Your task to perform on an android device: Go to wifi settings Image 0: 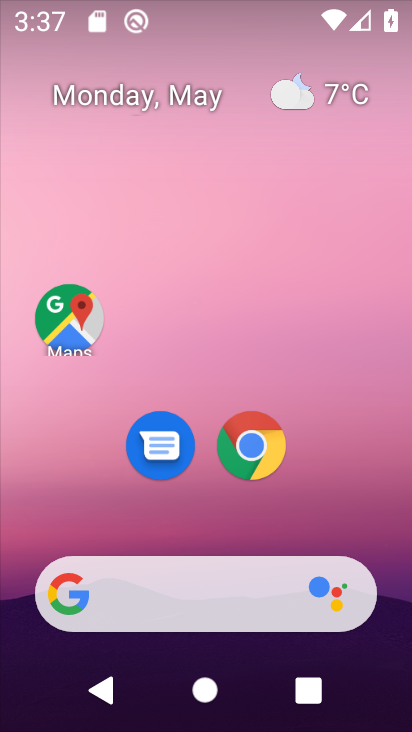
Step 0: drag from (334, 17) to (310, 515)
Your task to perform on an android device: Go to wifi settings Image 1: 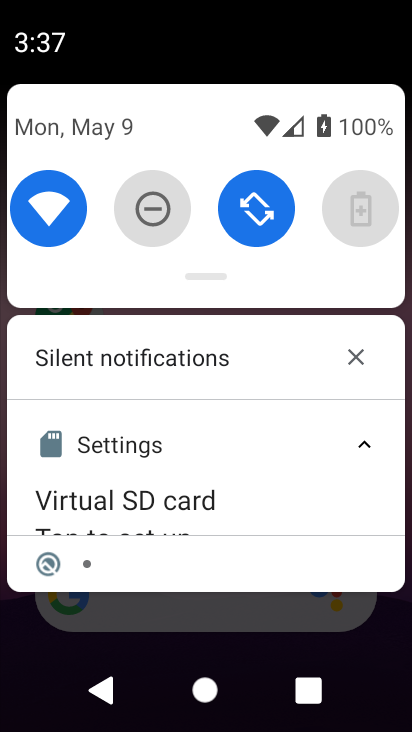
Step 1: click (57, 223)
Your task to perform on an android device: Go to wifi settings Image 2: 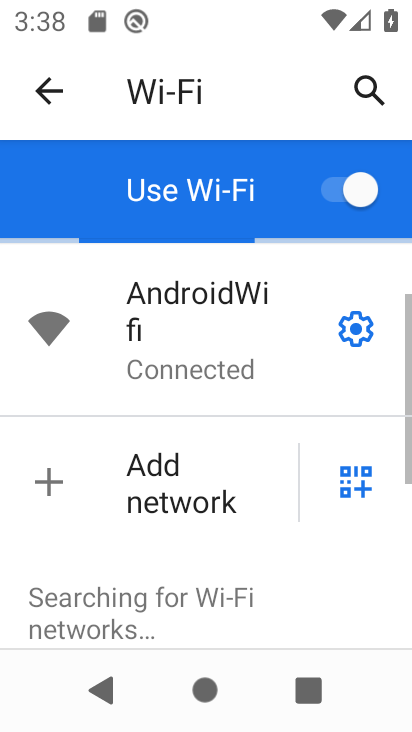
Step 2: task complete